Your task to perform on an android device: Is it going to rain tomorrow? Image 0: 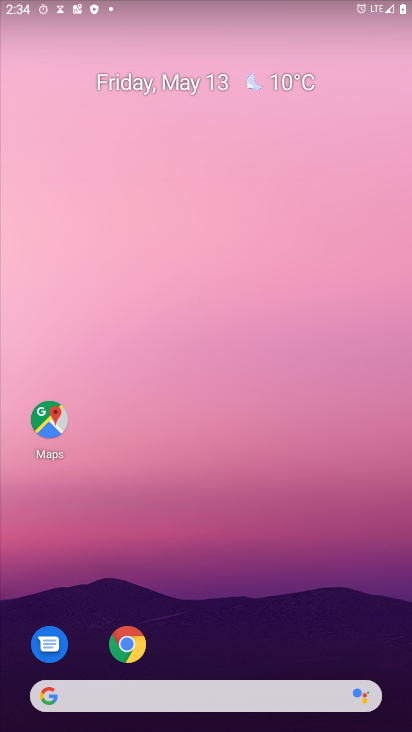
Step 0: drag from (202, 728) to (198, 122)
Your task to perform on an android device: Is it going to rain tomorrow? Image 1: 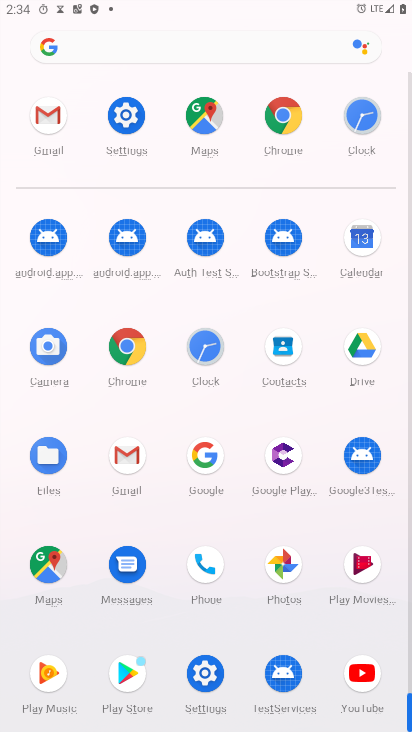
Step 1: click (208, 455)
Your task to perform on an android device: Is it going to rain tomorrow? Image 2: 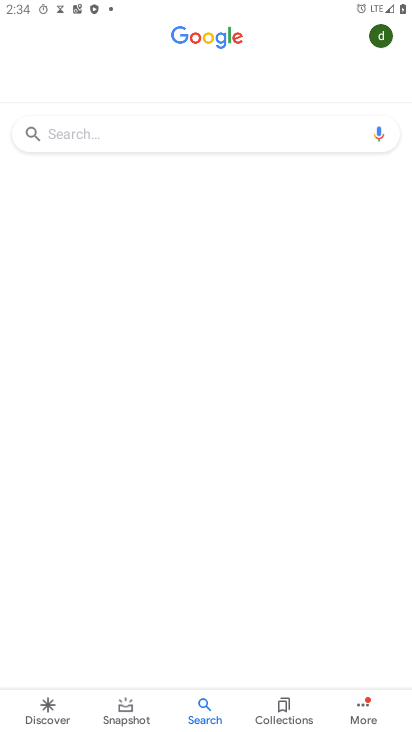
Step 2: click (150, 130)
Your task to perform on an android device: Is it going to rain tomorrow? Image 3: 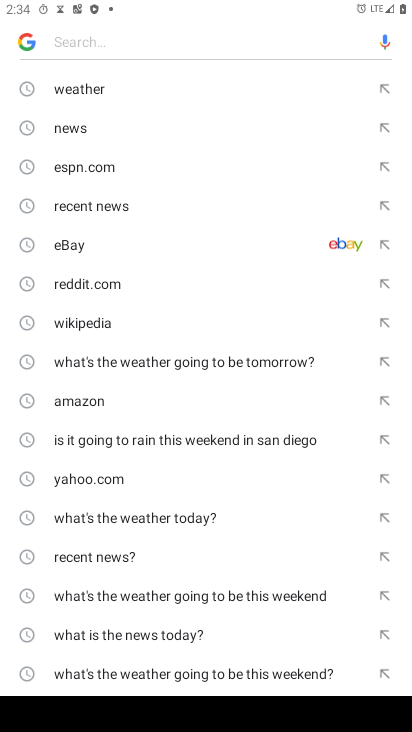
Step 3: click (80, 86)
Your task to perform on an android device: Is it going to rain tomorrow? Image 4: 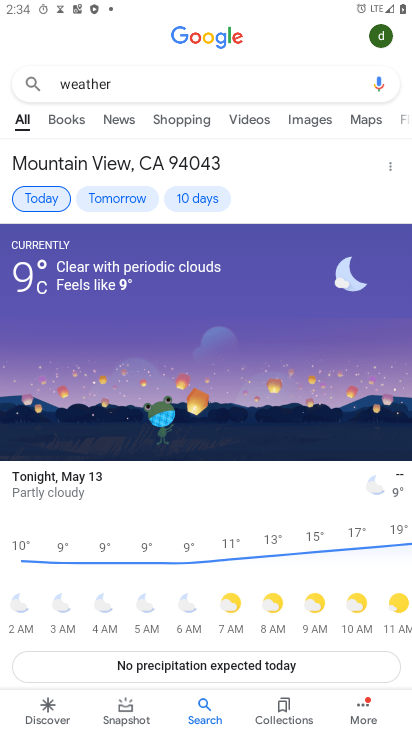
Step 4: click (112, 187)
Your task to perform on an android device: Is it going to rain tomorrow? Image 5: 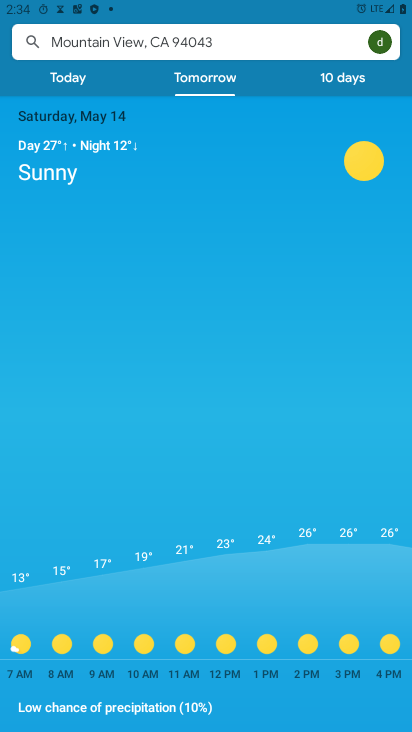
Step 5: task complete